Your task to perform on an android device: add a contact Image 0: 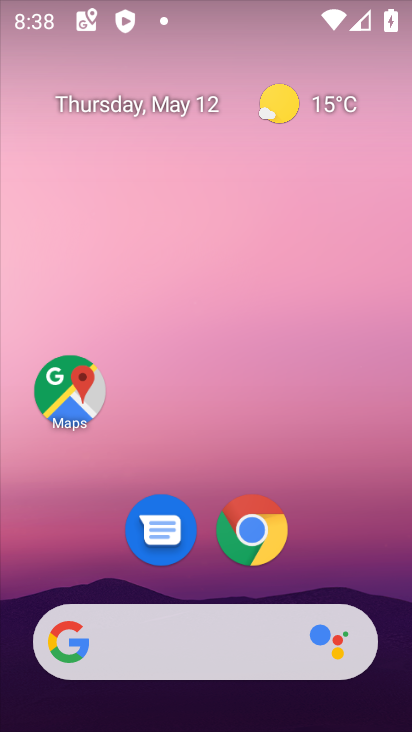
Step 0: drag from (248, 729) to (211, 99)
Your task to perform on an android device: add a contact Image 1: 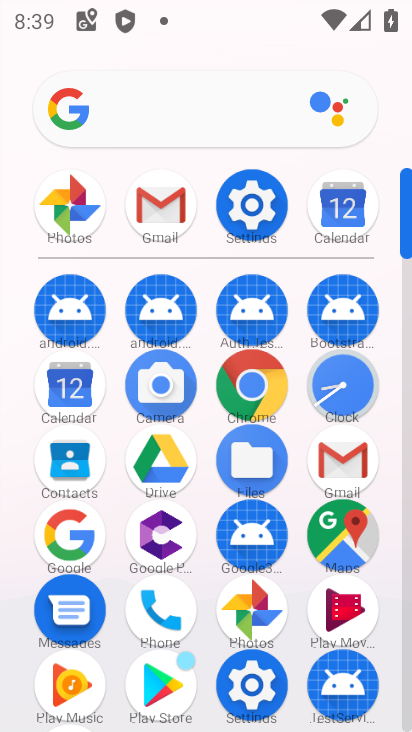
Step 1: click (54, 482)
Your task to perform on an android device: add a contact Image 2: 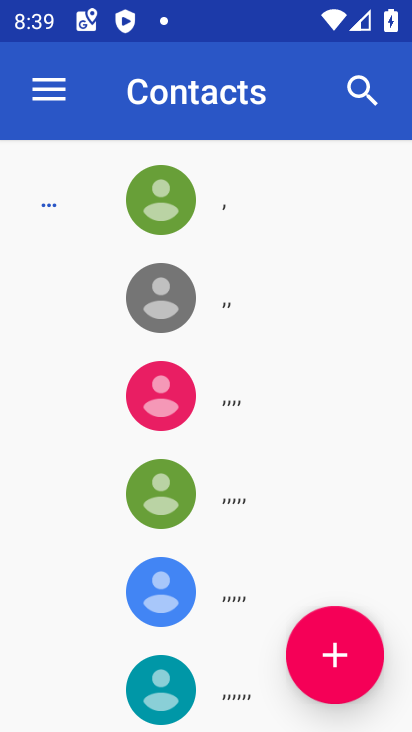
Step 2: click (341, 650)
Your task to perform on an android device: add a contact Image 3: 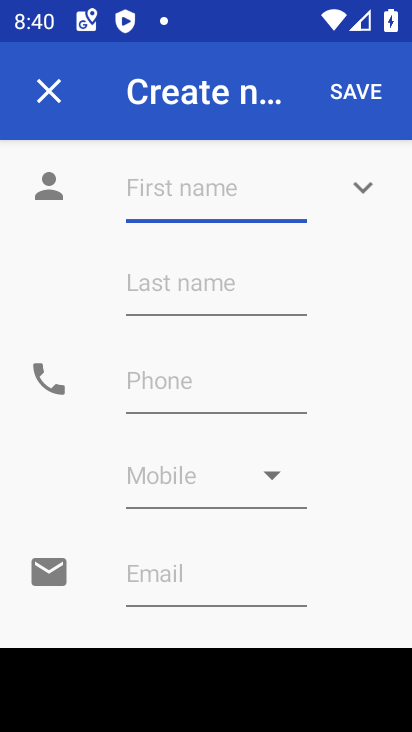
Step 3: type "hgj"
Your task to perform on an android device: add a contact Image 4: 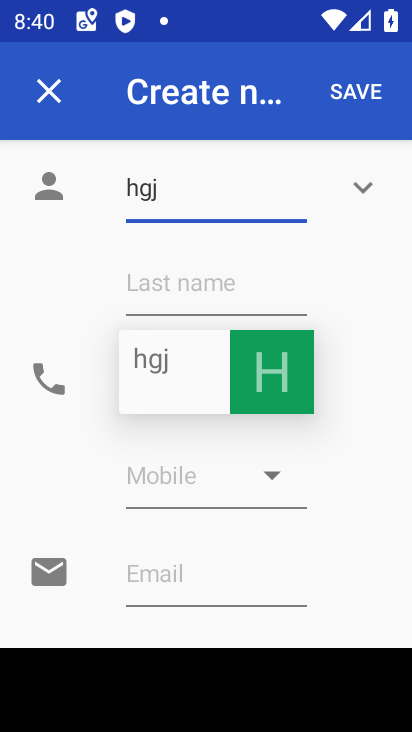
Step 4: click (268, 391)
Your task to perform on an android device: add a contact Image 5: 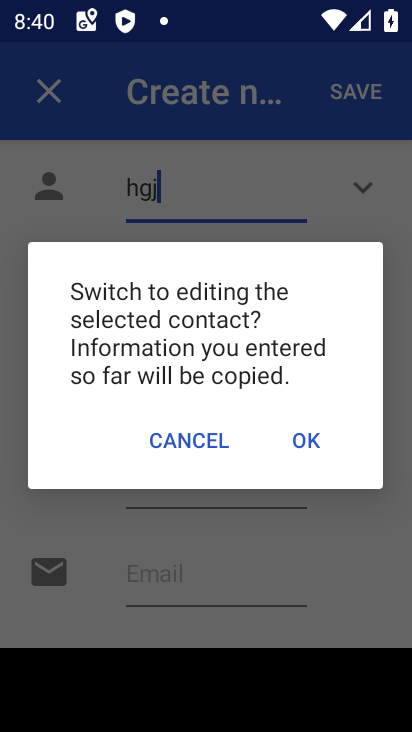
Step 5: click (163, 437)
Your task to perform on an android device: add a contact Image 6: 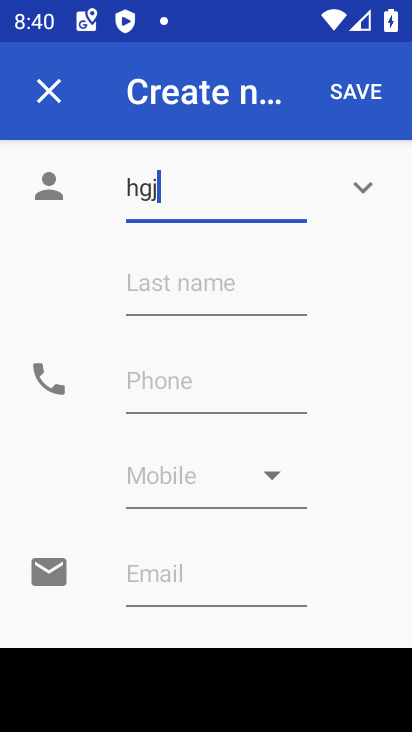
Step 6: click (188, 405)
Your task to perform on an android device: add a contact Image 7: 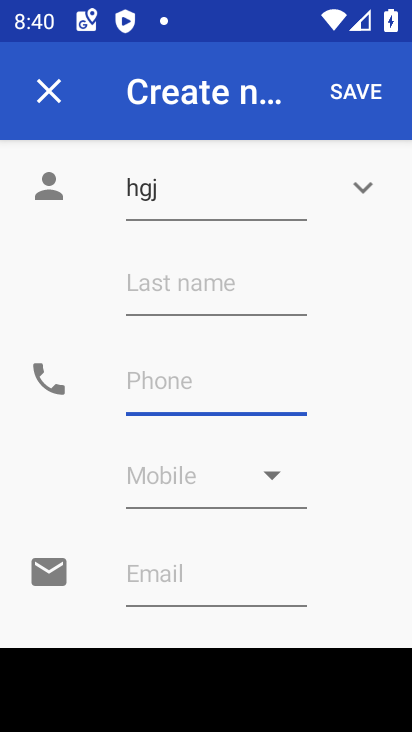
Step 7: click (208, 388)
Your task to perform on an android device: add a contact Image 8: 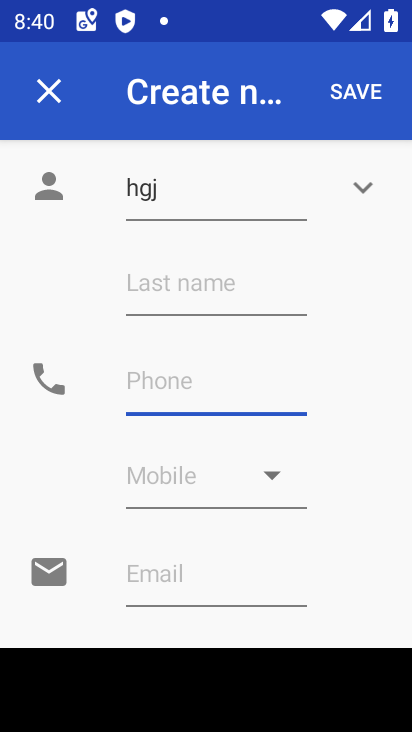
Step 8: type "769"
Your task to perform on an android device: add a contact Image 9: 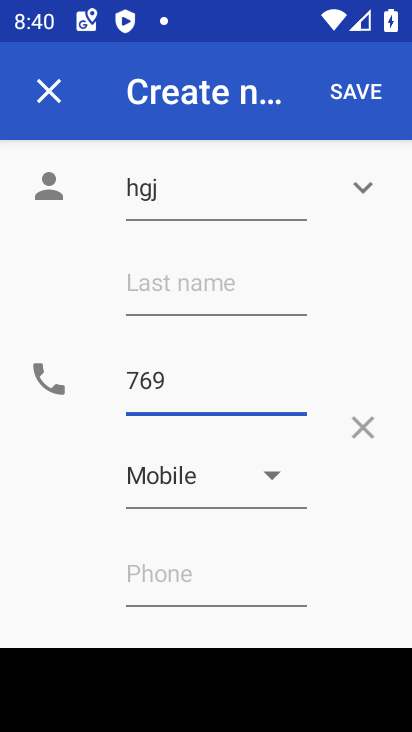
Step 9: click (379, 94)
Your task to perform on an android device: add a contact Image 10: 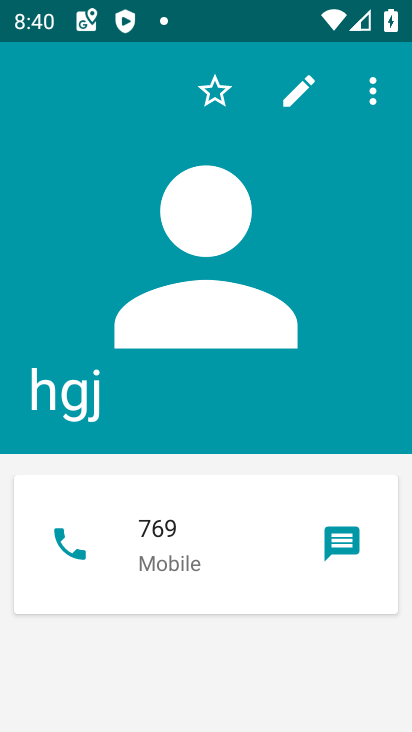
Step 10: task complete